Your task to perform on an android device: Go to privacy settings Image 0: 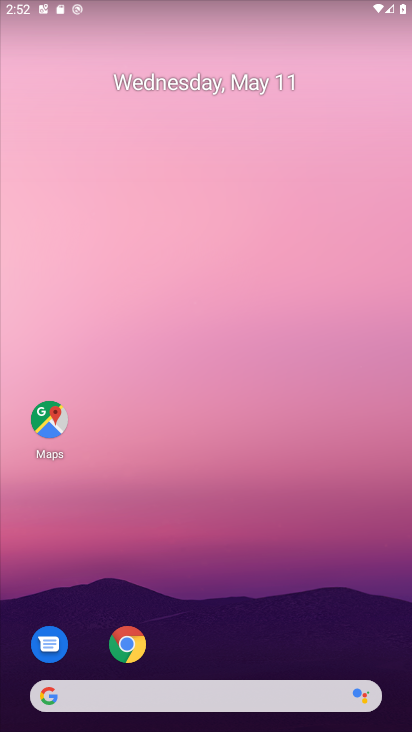
Step 0: drag from (207, 669) to (128, 49)
Your task to perform on an android device: Go to privacy settings Image 1: 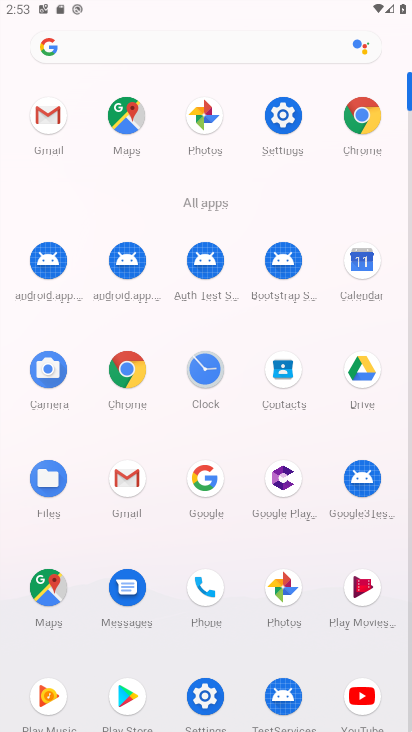
Step 1: click (209, 700)
Your task to perform on an android device: Go to privacy settings Image 2: 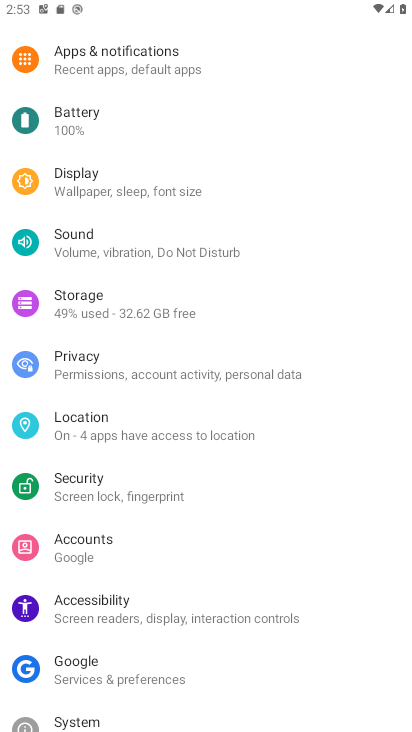
Step 2: click (98, 375)
Your task to perform on an android device: Go to privacy settings Image 3: 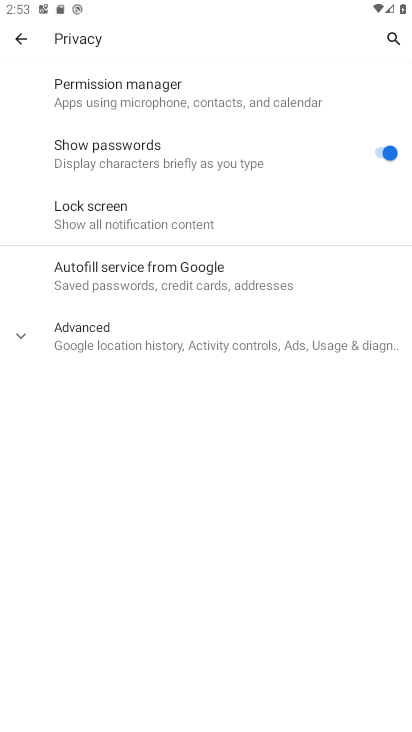
Step 3: click (113, 334)
Your task to perform on an android device: Go to privacy settings Image 4: 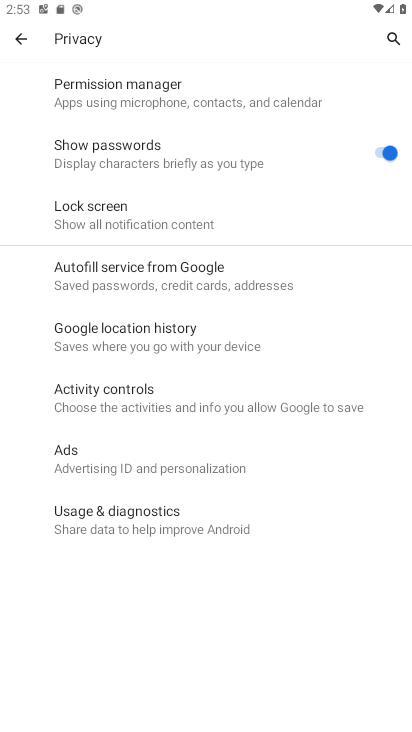
Step 4: task complete